Your task to perform on an android device: open a bookmark in the chrome app Image 0: 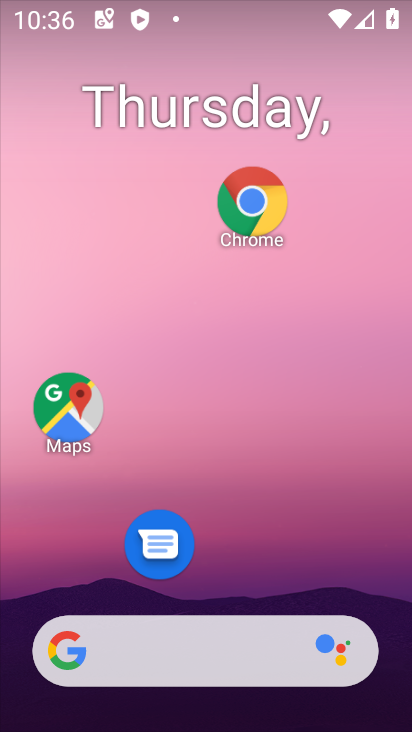
Step 0: press home button
Your task to perform on an android device: open a bookmark in the chrome app Image 1: 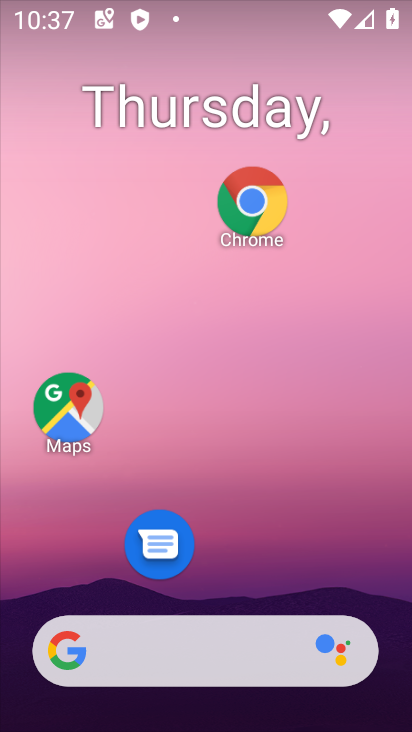
Step 1: click (251, 194)
Your task to perform on an android device: open a bookmark in the chrome app Image 2: 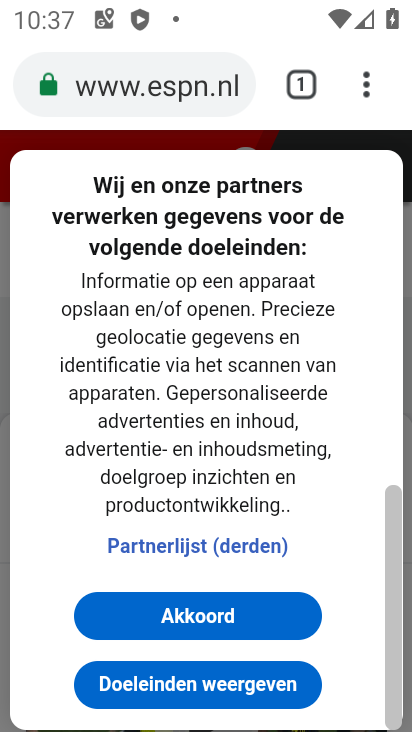
Step 2: click (364, 79)
Your task to perform on an android device: open a bookmark in the chrome app Image 3: 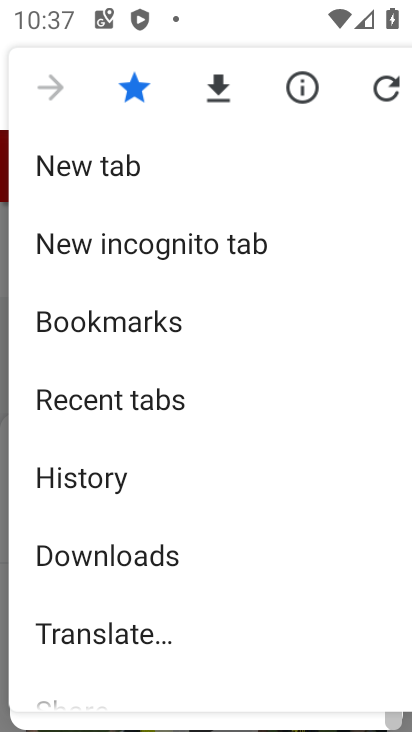
Step 3: click (188, 316)
Your task to perform on an android device: open a bookmark in the chrome app Image 4: 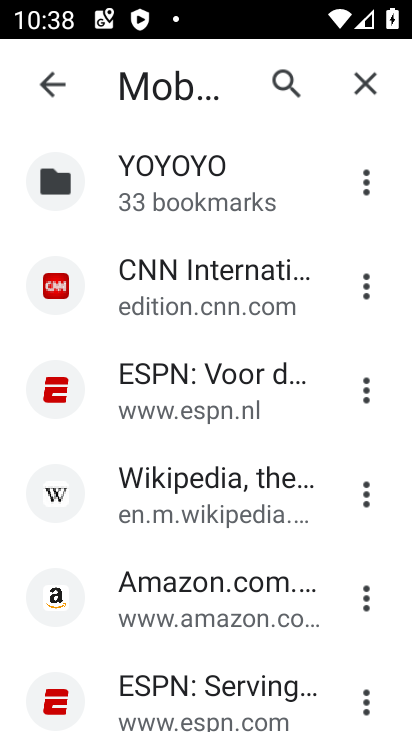
Step 4: drag from (168, 681) to (194, 269)
Your task to perform on an android device: open a bookmark in the chrome app Image 5: 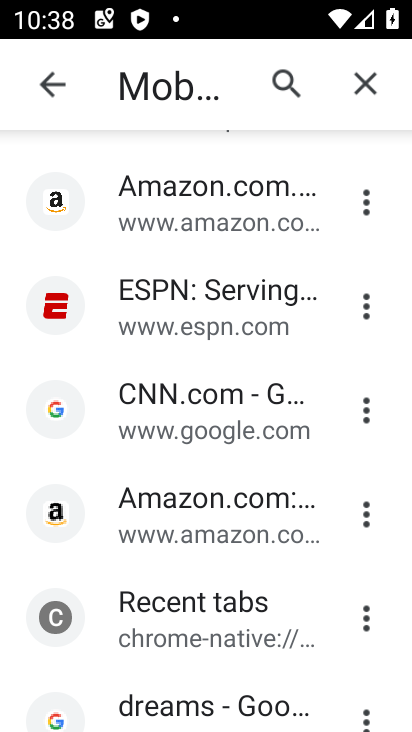
Step 5: click (215, 514)
Your task to perform on an android device: open a bookmark in the chrome app Image 6: 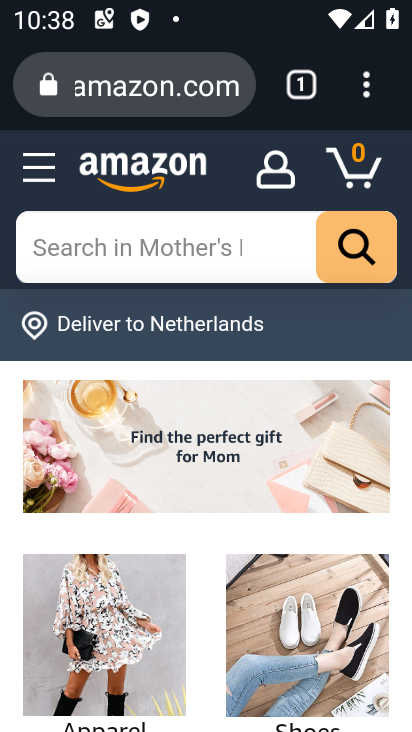
Step 6: task complete